Your task to perform on an android device: Search for seafood restaurants on Google Maps Image 0: 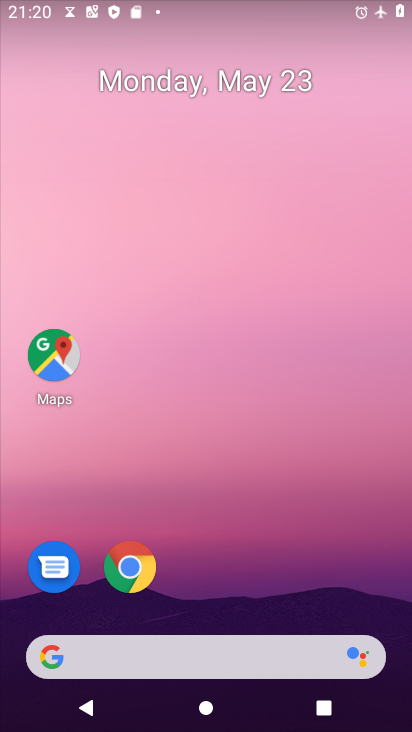
Step 0: click (42, 345)
Your task to perform on an android device: Search for seafood restaurants on Google Maps Image 1: 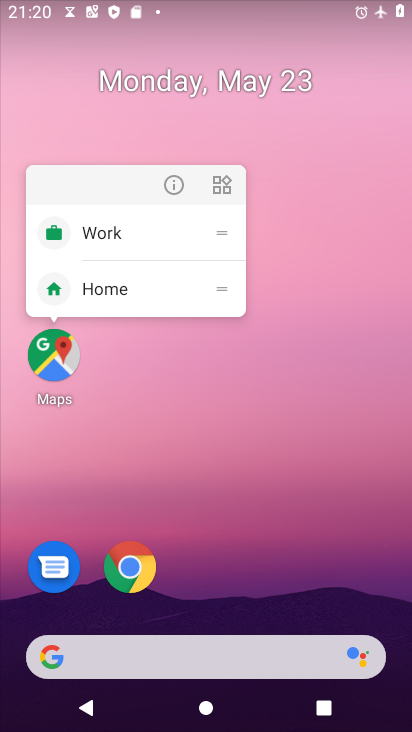
Step 1: click (30, 345)
Your task to perform on an android device: Search for seafood restaurants on Google Maps Image 2: 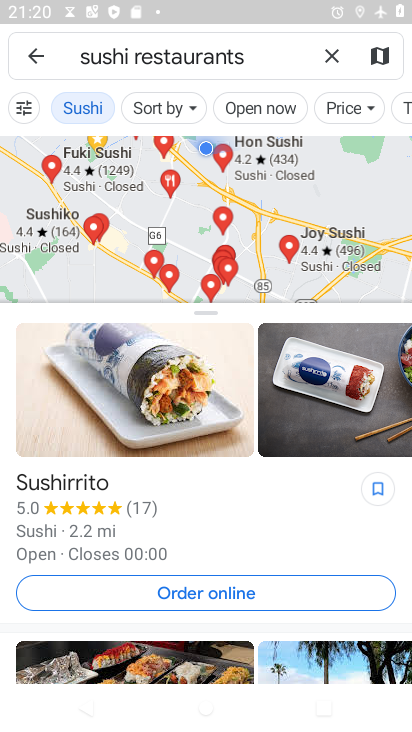
Step 2: click (353, 38)
Your task to perform on an android device: Search for seafood restaurants on Google Maps Image 3: 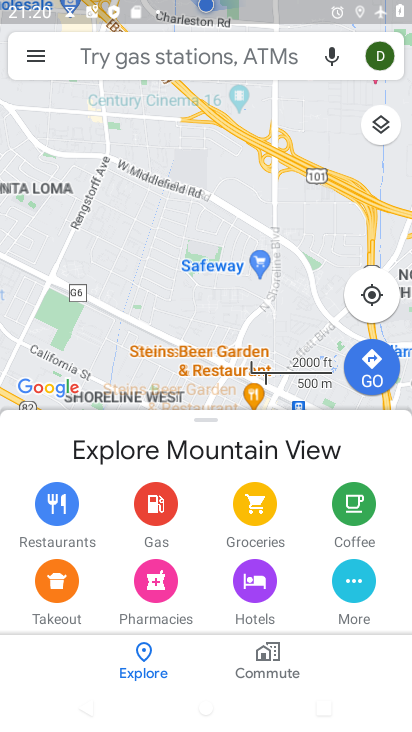
Step 3: click (241, 49)
Your task to perform on an android device: Search for seafood restaurants on Google Maps Image 4: 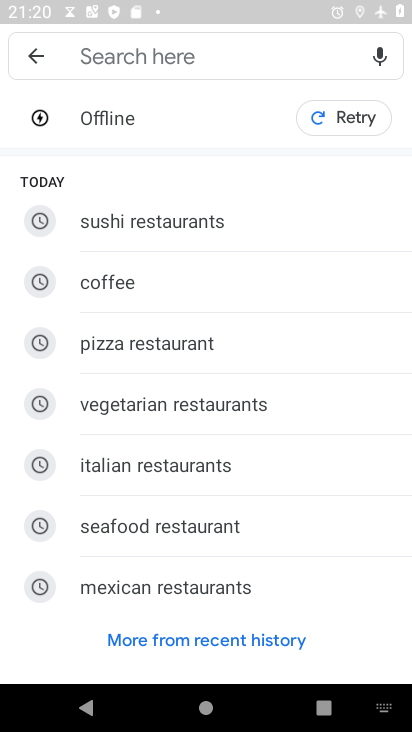
Step 4: click (176, 605)
Your task to perform on an android device: Search for seafood restaurants on Google Maps Image 5: 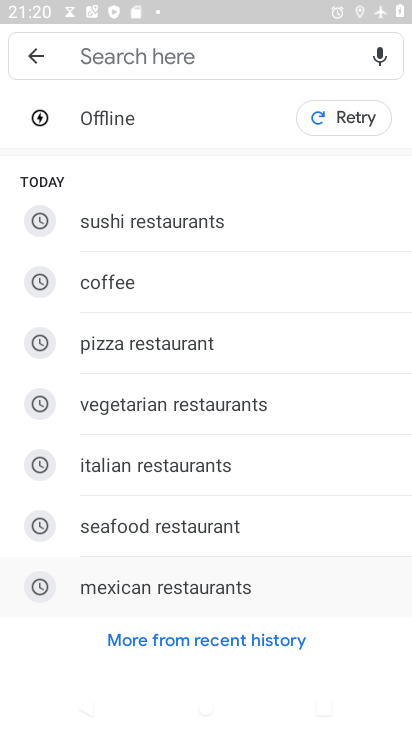
Step 5: click (198, 515)
Your task to perform on an android device: Search for seafood restaurants on Google Maps Image 6: 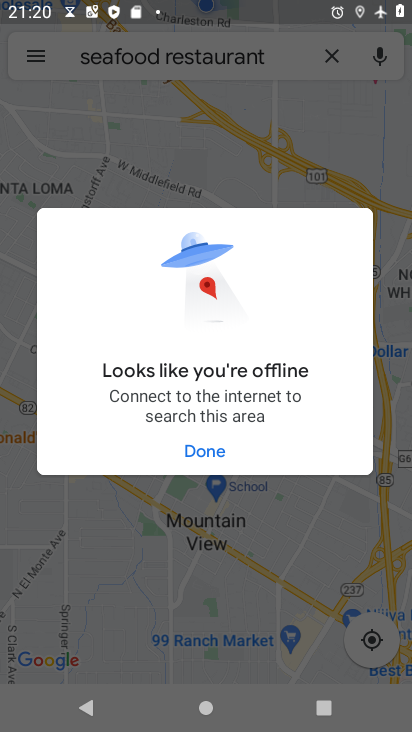
Step 6: click (219, 456)
Your task to perform on an android device: Search for seafood restaurants on Google Maps Image 7: 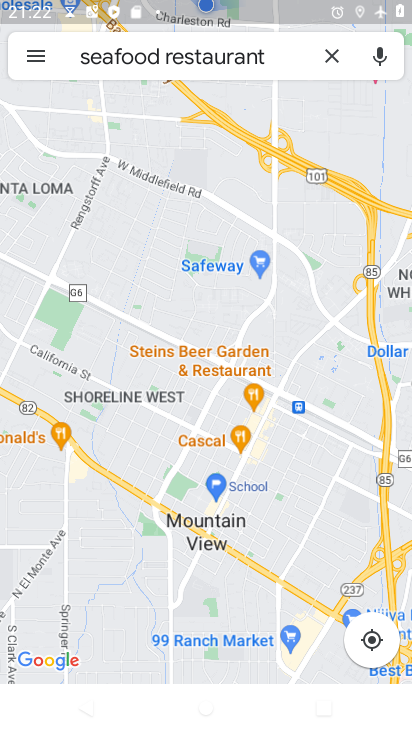
Step 7: task complete